Your task to perform on an android device: What's on my calendar today? Image 0: 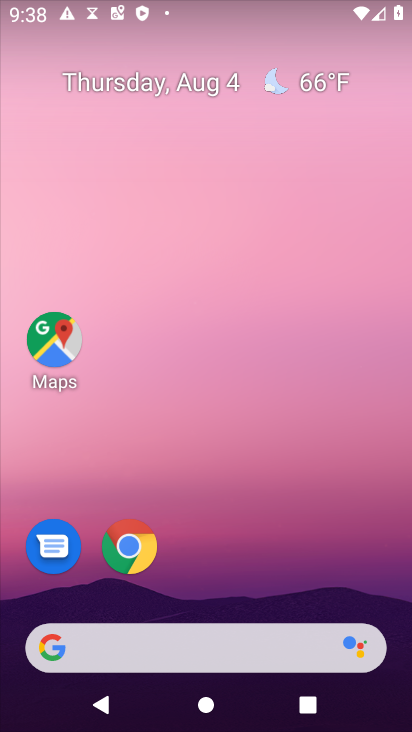
Step 0: press home button
Your task to perform on an android device: What's on my calendar today? Image 1: 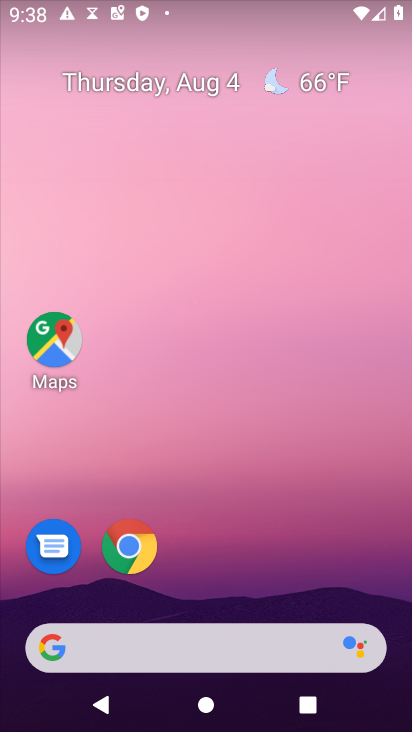
Step 1: drag from (225, 607) to (252, 180)
Your task to perform on an android device: What's on my calendar today? Image 2: 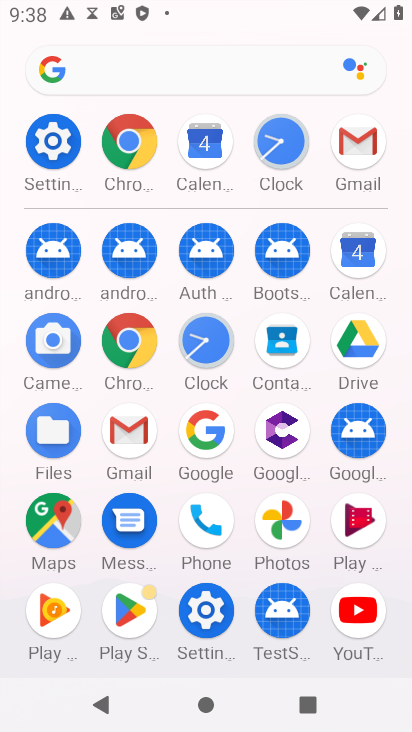
Step 2: click (370, 249)
Your task to perform on an android device: What's on my calendar today? Image 3: 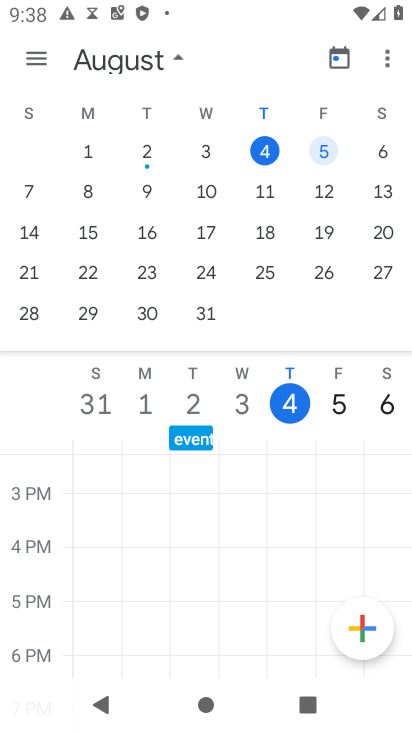
Step 3: click (256, 153)
Your task to perform on an android device: What's on my calendar today? Image 4: 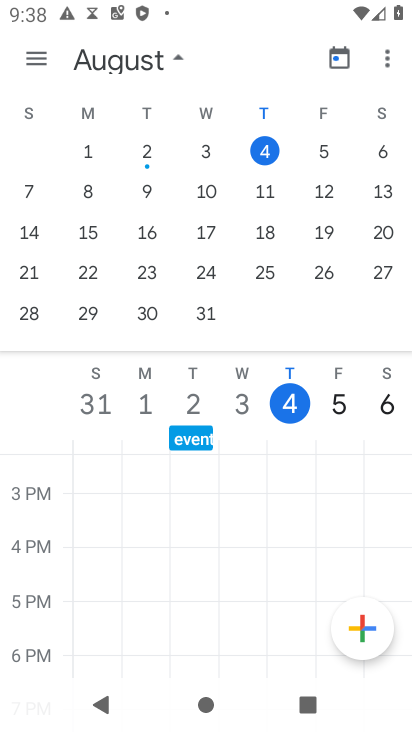
Step 4: click (267, 149)
Your task to perform on an android device: What's on my calendar today? Image 5: 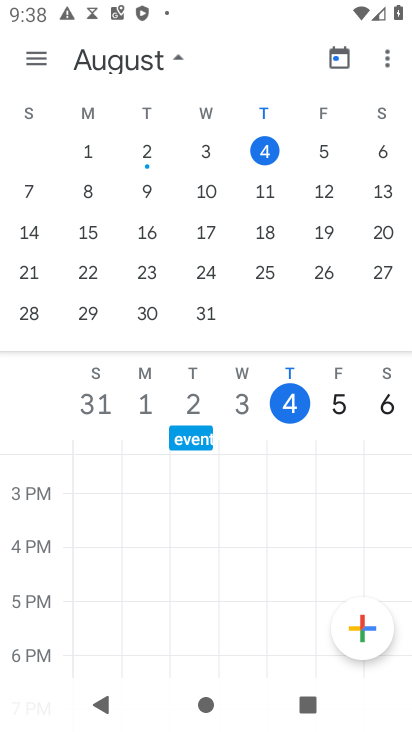
Step 5: task complete